Your task to perform on an android device: snooze an email in the gmail app Image 0: 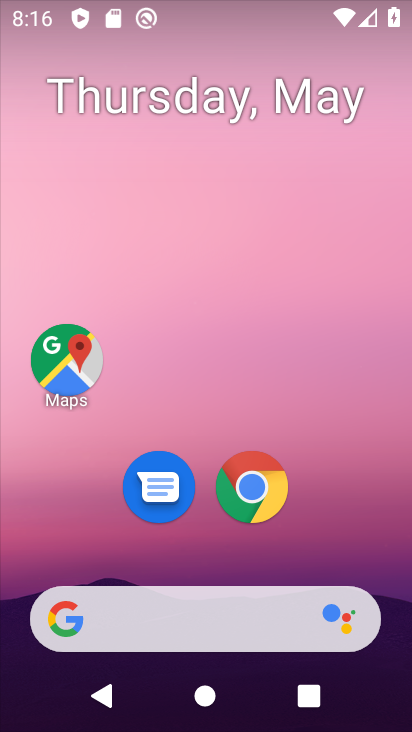
Step 0: drag from (370, 552) to (308, 156)
Your task to perform on an android device: snooze an email in the gmail app Image 1: 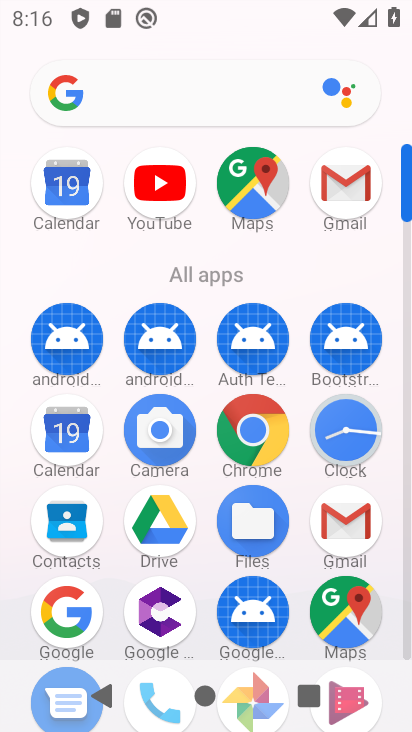
Step 1: click (342, 533)
Your task to perform on an android device: snooze an email in the gmail app Image 2: 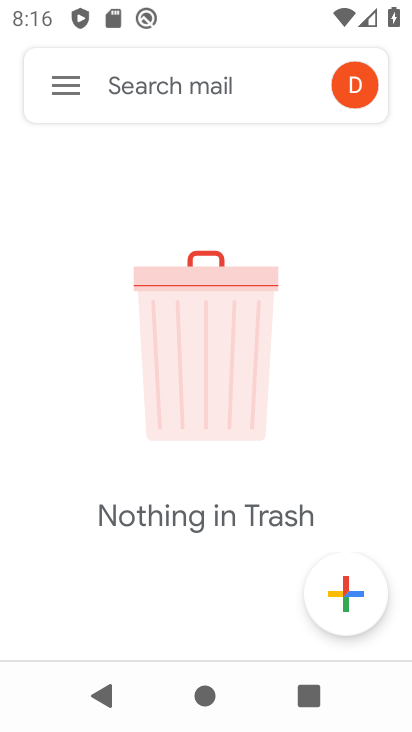
Step 2: click (72, 103)
Your task to perform on an android device: snooze an email in the gmail app Image 3: 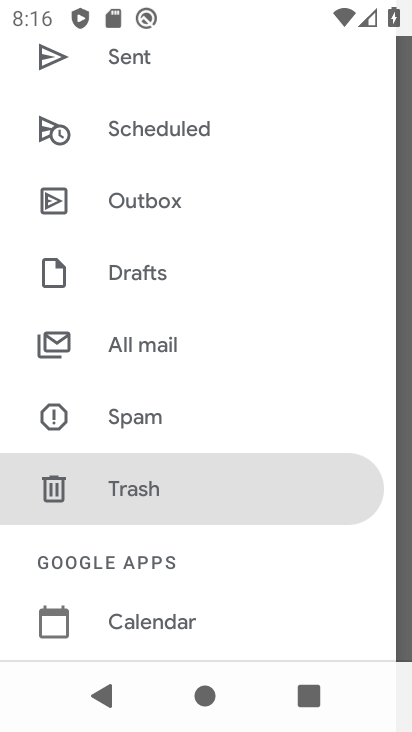
Step 3: drag from (155, 155) to (182, 433)
Your task to perform on an android device: snooze an email in the gmail app Image 4: 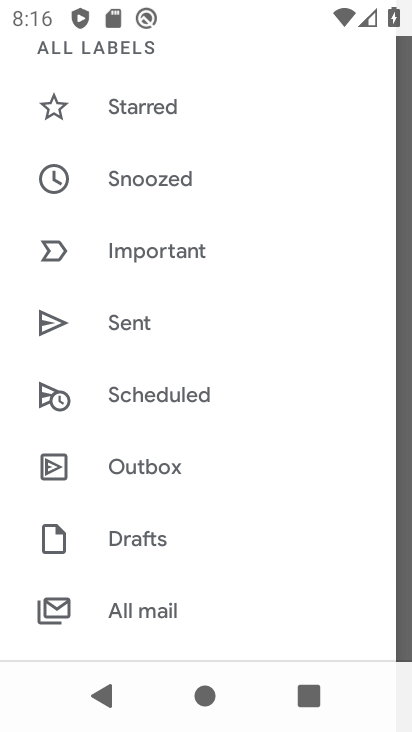
Step 4: click (170, 607)
Your task to perform on an android device: snooze an email in the gmail app Image 5: 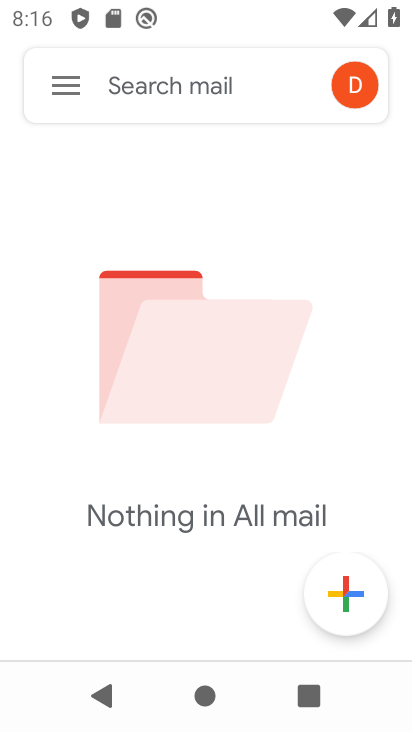
Step 5: task complete